Your task to perform on an android device: Go to display settings Image 0: 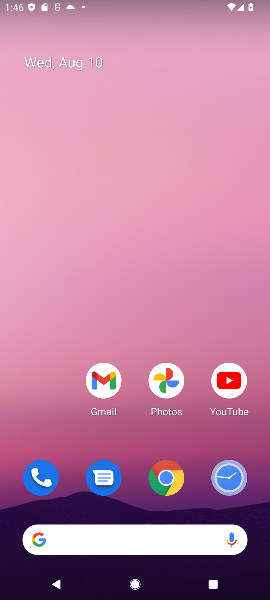
Step 0: drag from (89, 349) to (127, 147)
Your task to perform on an android device: Go to display settings Image 1: 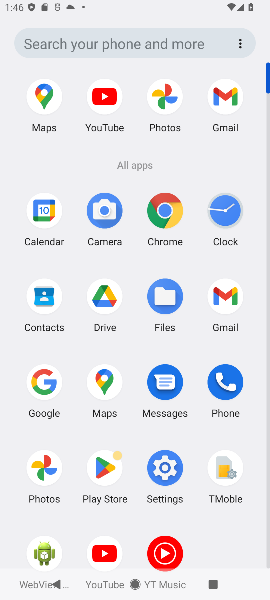
Step 1: click (158, 479)
Your task to perform on an android device: Go to display settings Image 2: 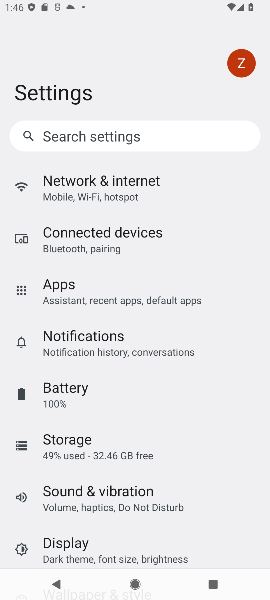
Step 2: click (60, 552)
Your task to perform on an android device: Go to display settings Image 3: 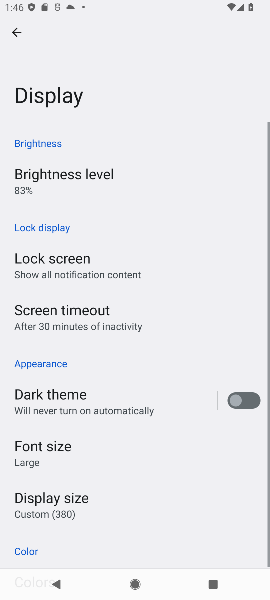
Step 3: task complete